Your task to perform on an android device: Go to wifi settings Image 0: 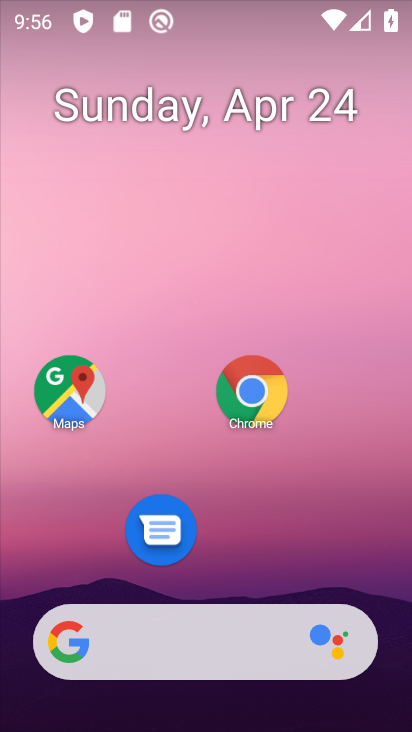
Step 0: drag from (238, 9) to (175, 610)
Your task to perform on an android device: Go to wifi settings Image 1: 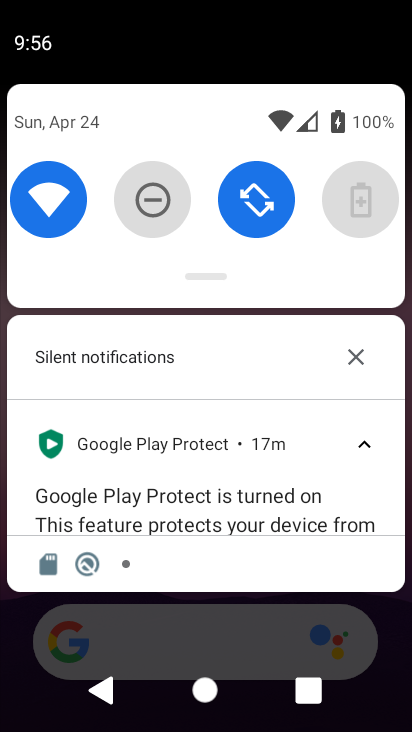
Step 1: click (31, 204)
Your task to perform on an android device: Go to wifi settings Image 2: 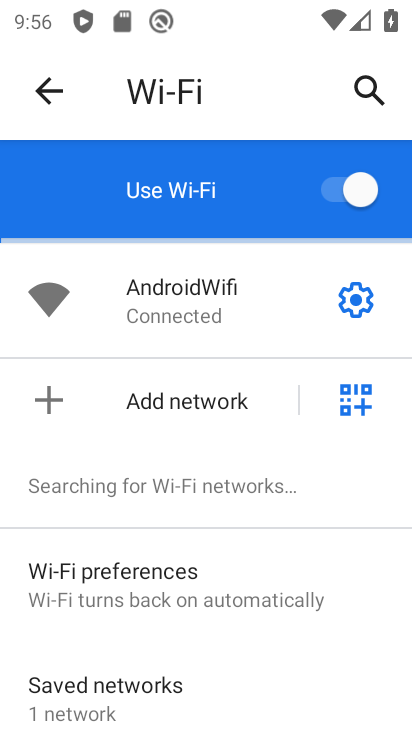
Step 2: task complete